Your task to perform on an android device: Go to Android settings Image 0: 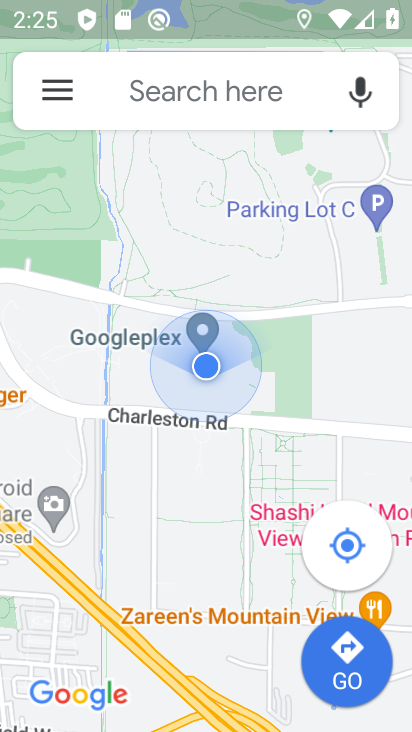
Step 0: press home button
Your task to perform on an android device: Go to Android settings Image 1: 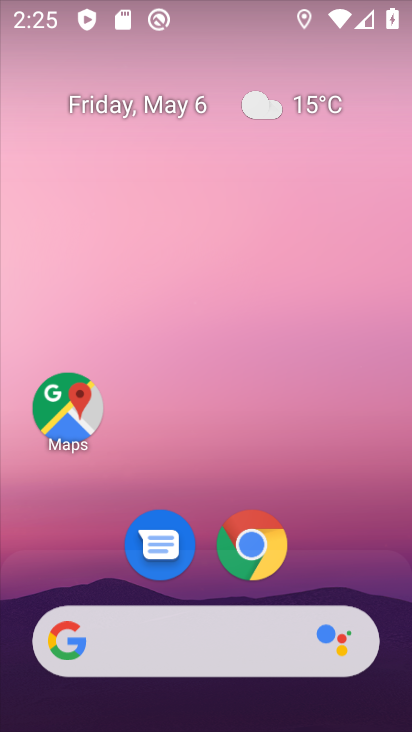
Step 1: drag from (200, 726) to (199, 212)
Your task to perform on an android device: Go to Android settings Image 2: 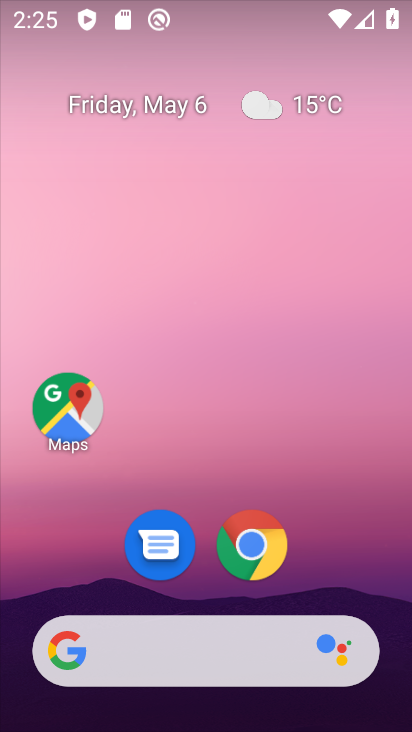
Step 2: drag from (181, 703) to (181, 258)
Your task to perform on an android device: Go to Android settings Image 3: 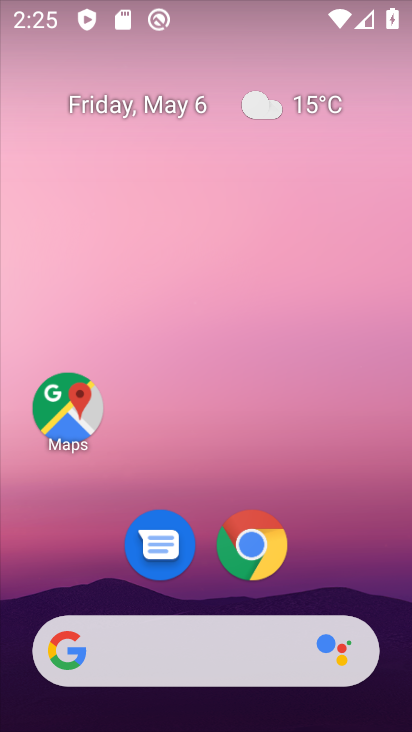
Step 3: drag from (196, 725) to (194, 245)
Your task to perform on an android device: Go to Android settings Image 4: 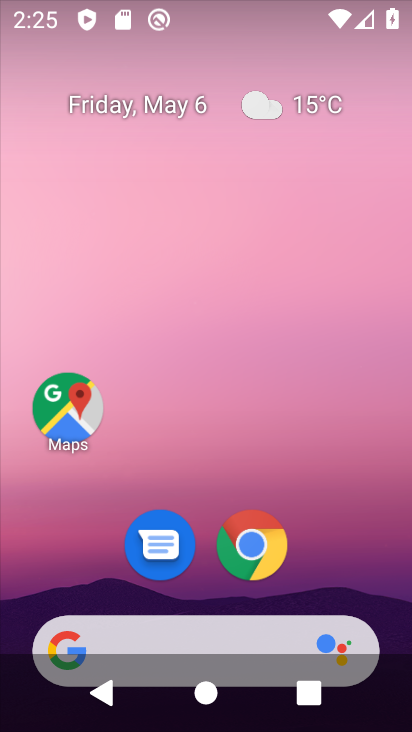
Step 4: drag from (184, 720) to (177, 419)
Your task to perform on an android device: Go to Android settings Image 5: 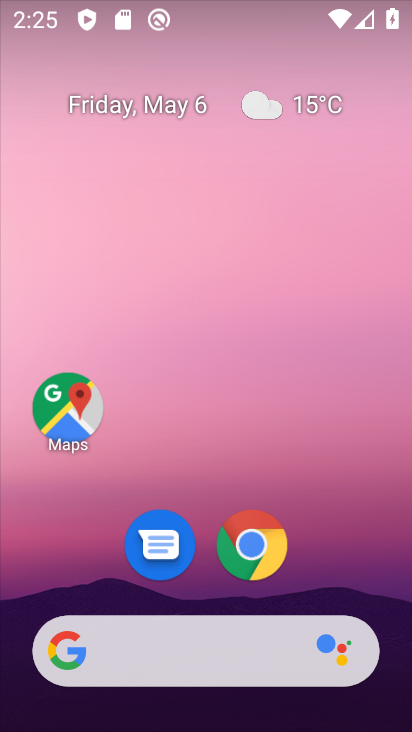
Step 5: drag from (205, 716) to (201, 231)
Your task to perform on an android device: Go to Android settings Image 6: 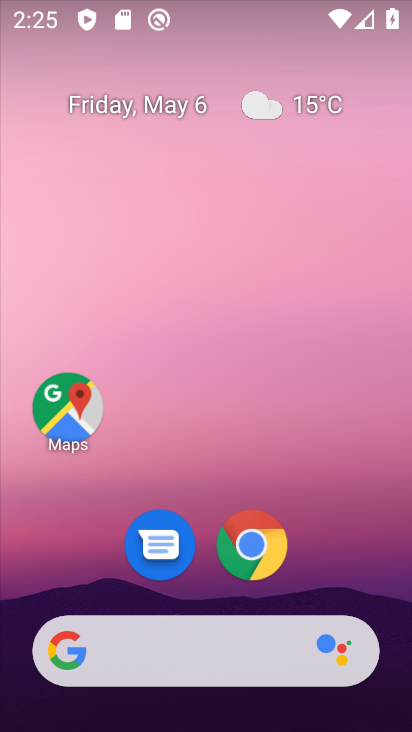
Step 6: drag from (191, 724) to (188, 250)
Your task to perform on an android device: Go to Android settings Image 7: 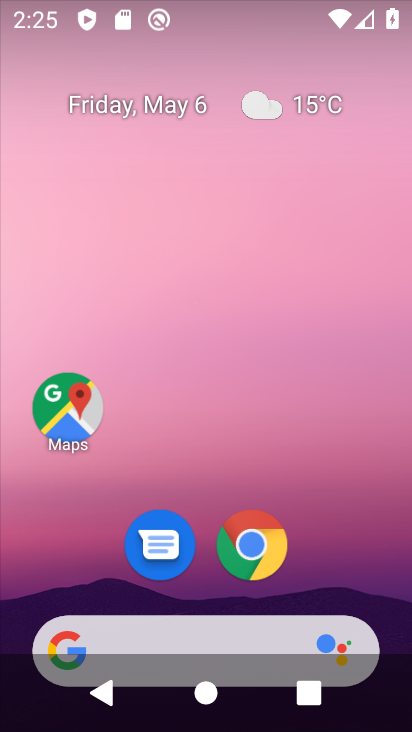
Step 7: drag from (159, 708) to (164, 205)
Your task to perform on an android device: Go to Android settings Image 8: 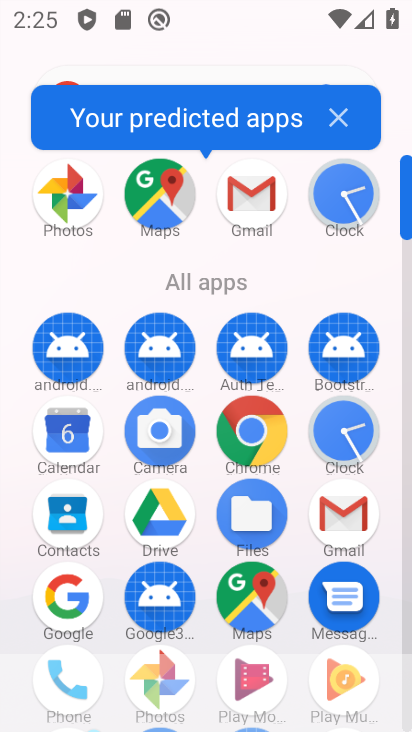
Step 8: drag from (115, 618) to (108, 232)
Your task to perform on an android device: Go to Android settings Image 9: 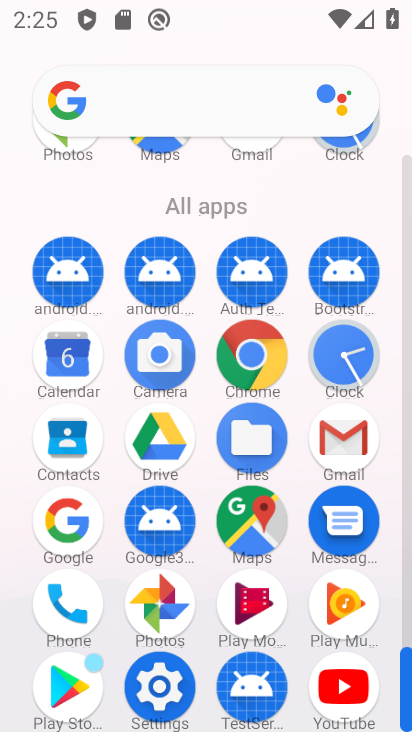
Step 9: click (156, 681)
Your task to perform on an android device: Go to Android settings Image 10: 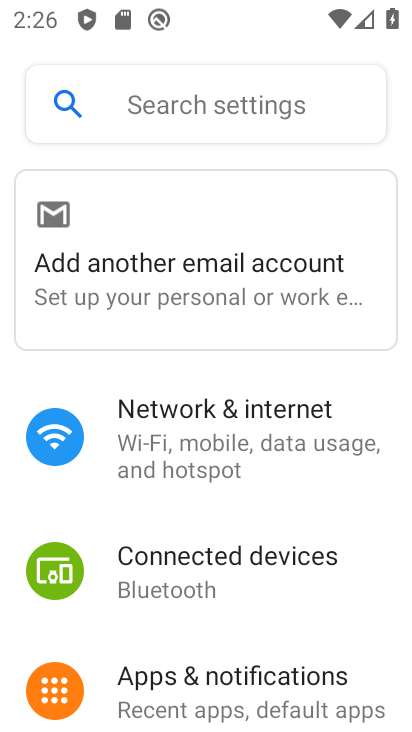
Step 10: task complete